Your task to perform on an android device: turn pop-ups on in chrome Image 0: 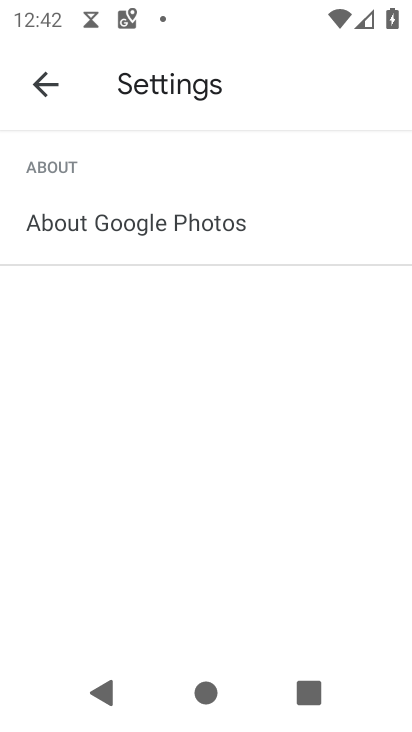
Step 0: press home button
Your task to perform on an android device: turn pop-ups on in chrome Image 1: 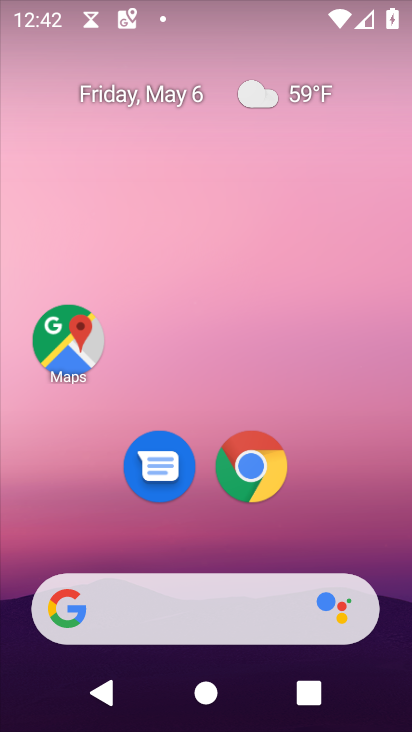
Step 1: click (255, 458)
Your task to perform on an android device: turn pop-ups on in chrome Image 2: 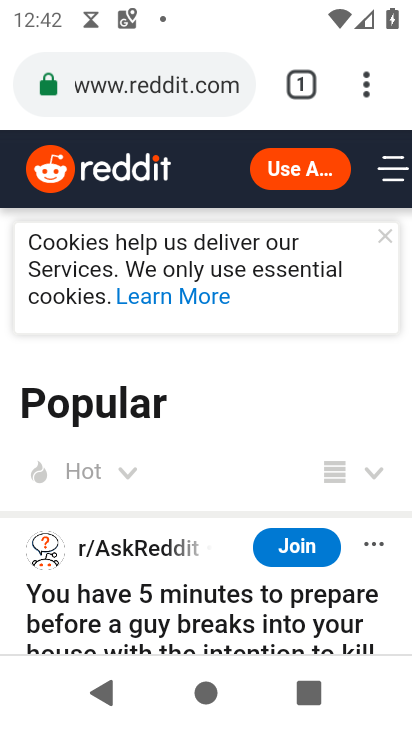
Step 2: drag from (380, 91) to (189, 515)
Your task to perform on an android device: turn pop-ups on in chrome Image 3: 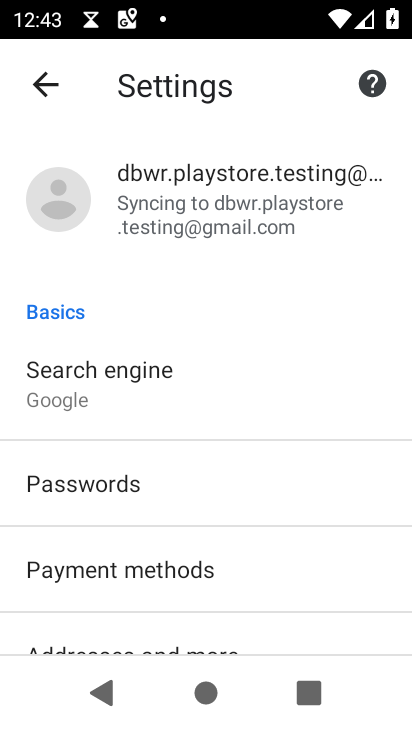
Step 3: drag from (235, 567) to (239, 122)
Your task to perform on an android device: turn pop-ups on in chrome Image 4: 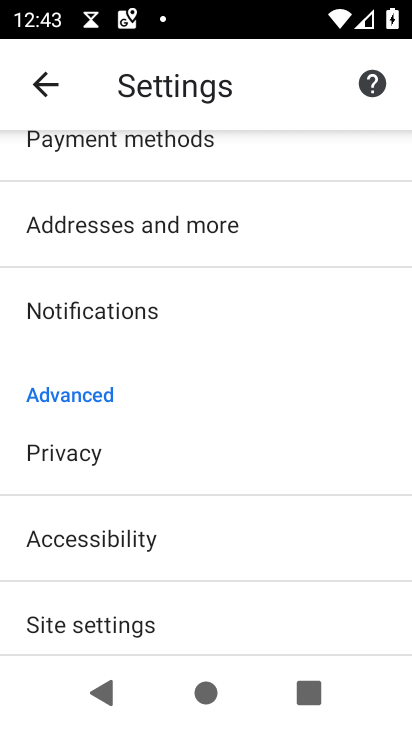
Step 4: drag from (271, 604) to (304, 196)
Your task to perform on an android device: turn pop-ups on in chrome Image 5: 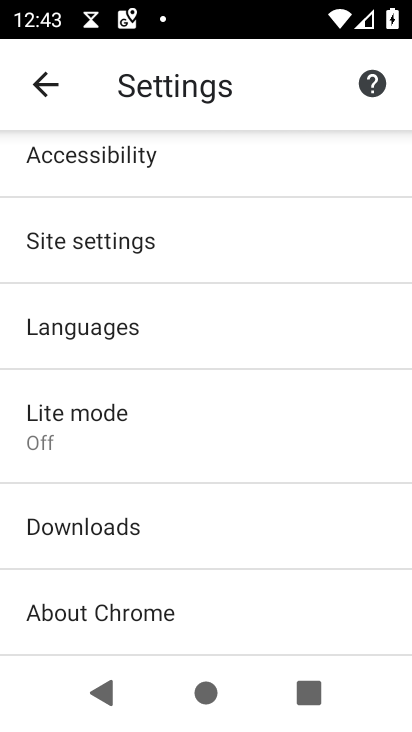
Step 5: click (303, 225)
Your task to perform on an android device: turn pop-ups on in chrome Image 6: 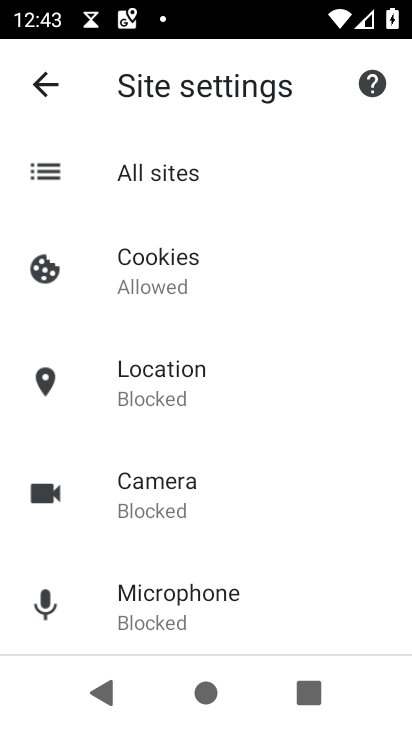
Step 6: drag from (311, 526) to (319, 192)
Your task to perform on an android device: turn pop-ups on in chrome Image 7: 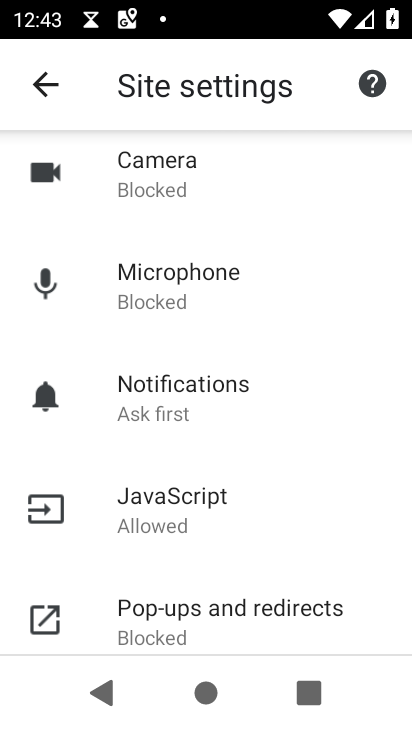
Step 7: click (345, 615)
Your task to perform on an android device: turn pop-ups on in chrome Image 8: 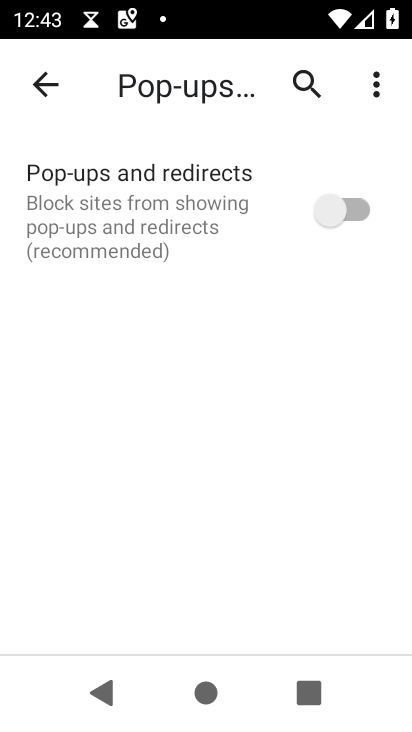
Step 8: task complete